Your task to perform on an android device: Go to settings Image 0: 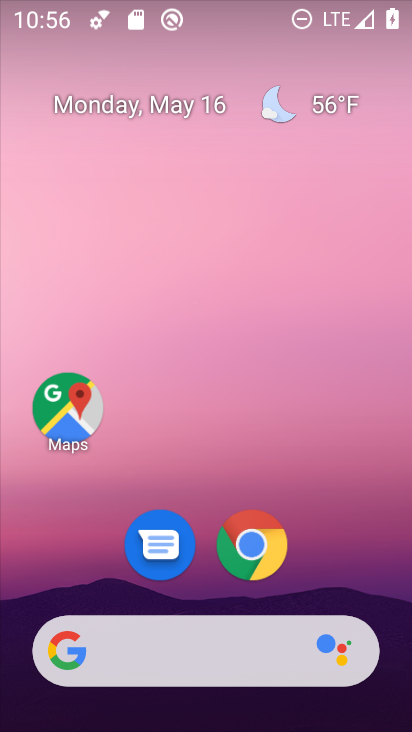
Step 0: drag from (334, 553) to (267, 172)
Your task to perform on an android device: Go to settings Image 1: 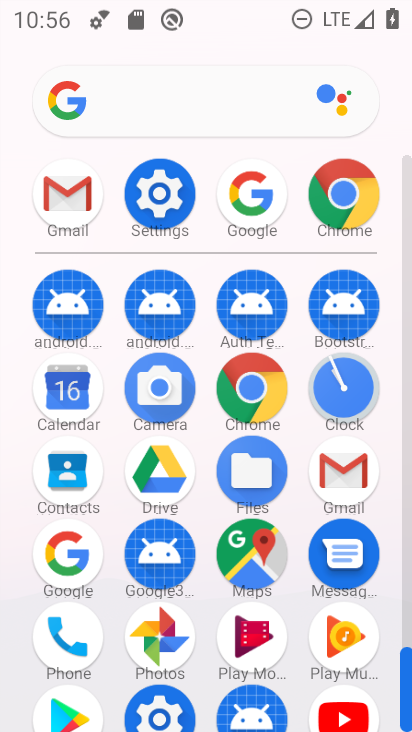
Step 1: click (157, 195)
Your task to perform on an android device: Go to settings Image 2: 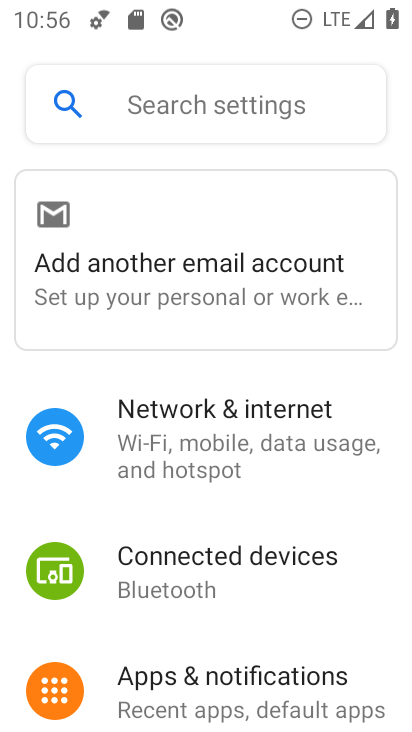
Step 2: task complete